Your task to perform on an android device: empty trash in google photos Image 0: 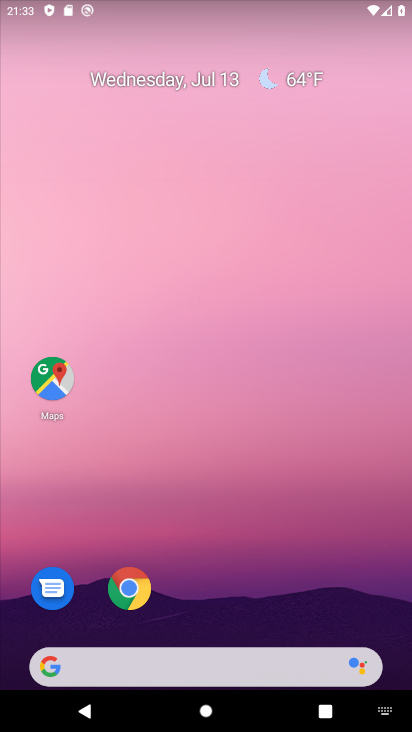
Step 0: drag from (219, 607) to (293, 19)
Your task to perform on an android device: empty trash in google photos Image 1: 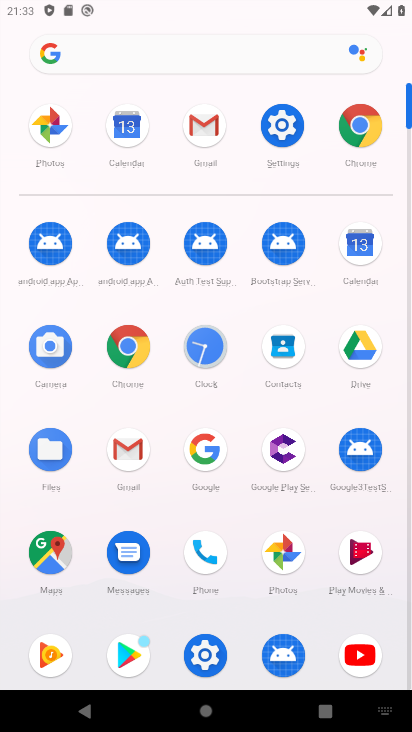
Step 1: click (278, 551)
Your task to perform on an android device: empty trash in google photos Image 2: 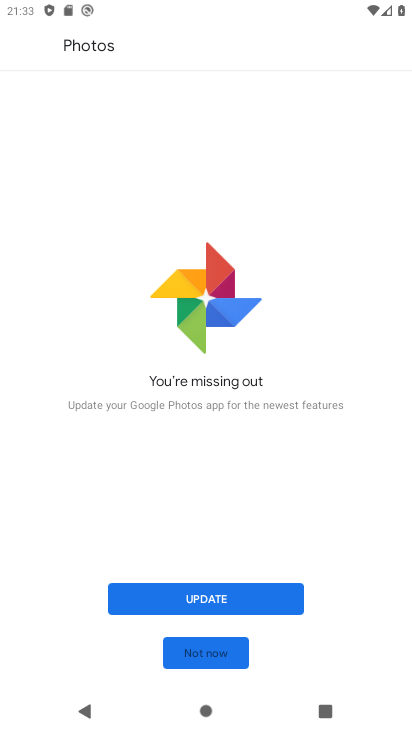
Step 2: click (194, 655)
Your task to perform on an android device: empty trash in google photos Image 3: 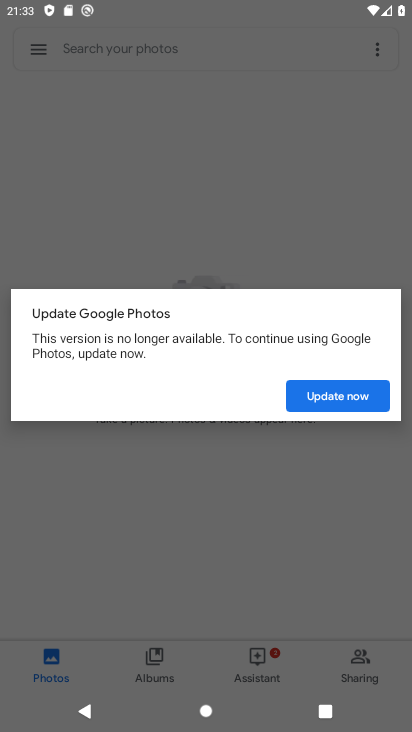
Step 3: click (344, 378)
Your task to perform on an android device: empty trash in google photos Image 4: 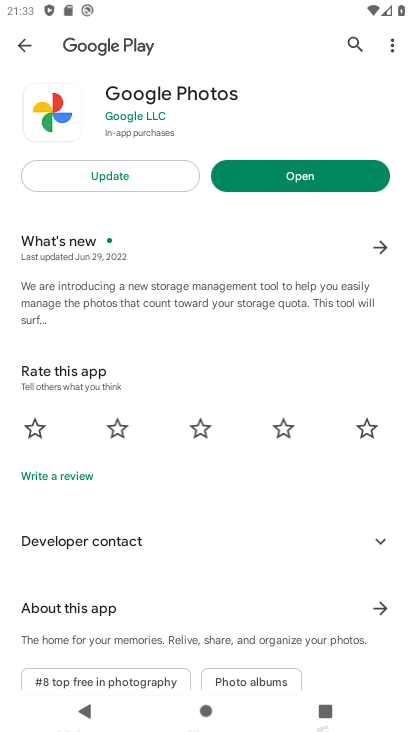
Step 4: click (306, 181)
Your task to perform on an android device: empty trash in google photos Image 5: 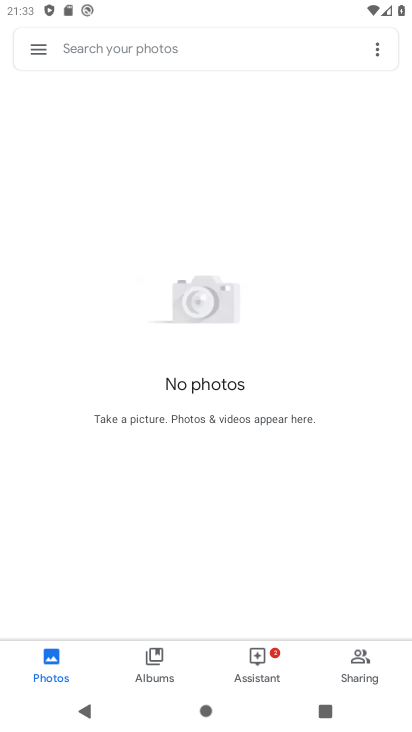
Step 5: click (34, 47)
Your task to perform on an android device: empty trash in google photos Image 6: 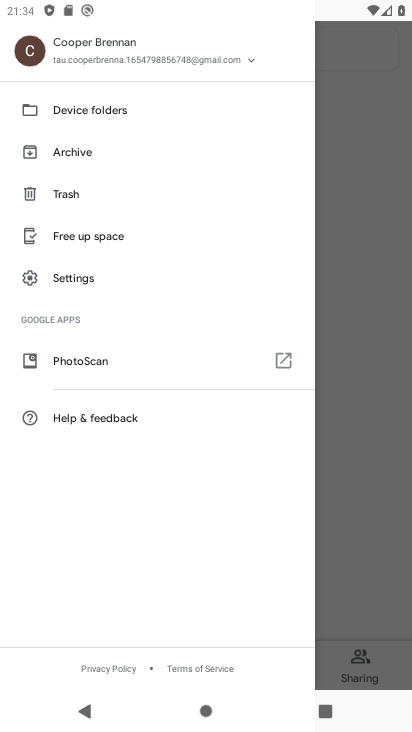
Step 6: click (65, 191)
Your task to perform on an android device: empty trash in google photos Image 7: 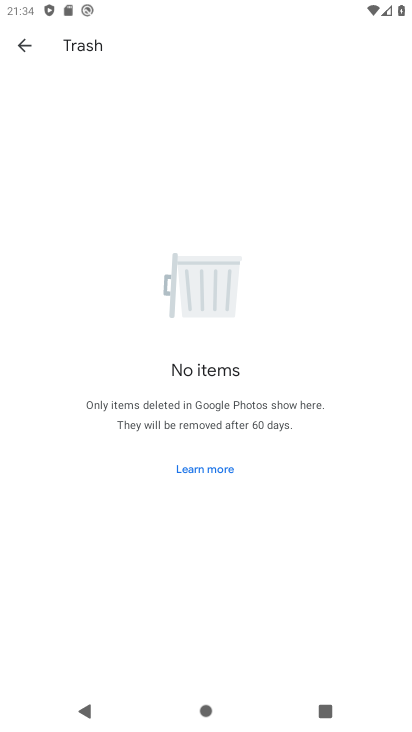
Step 7: task complete